Your task to perform on an android device: turn off improve location accuracy Image 0: 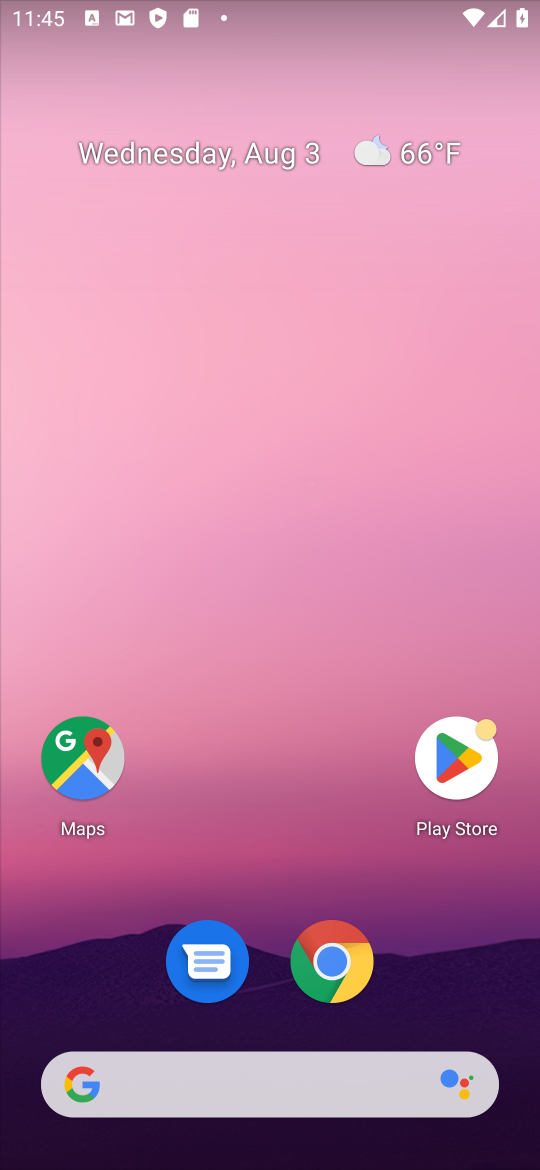
Step 0: drag from (238, 469) to (205, 123)
Your task to perform on an android device: turn off improve location accuracy Image 1: 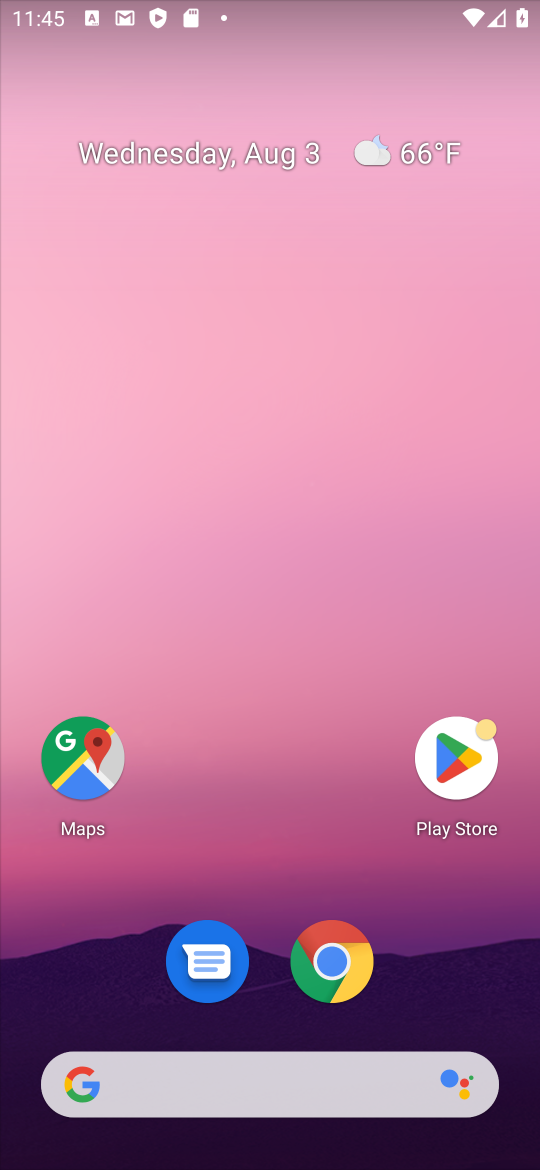
Step 1: drag from (297, 858) to (320, 22)
Your task to perform on an android device: turn off improve location accuracy Image 2: 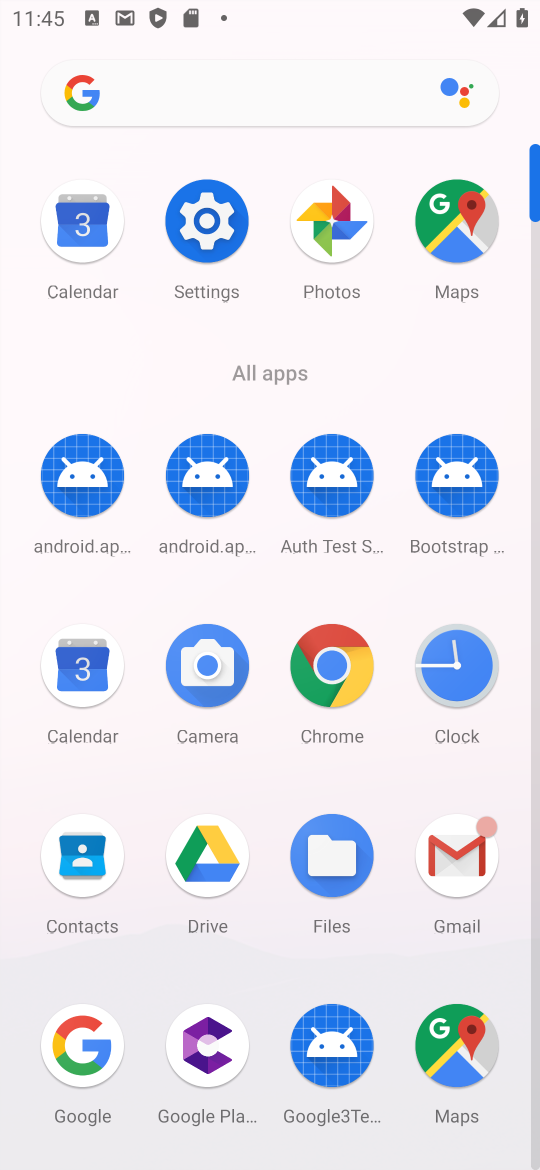
Step 2: click (209, 228)
Your task to perform on an android device: turn off improve location accuracy Image 3: 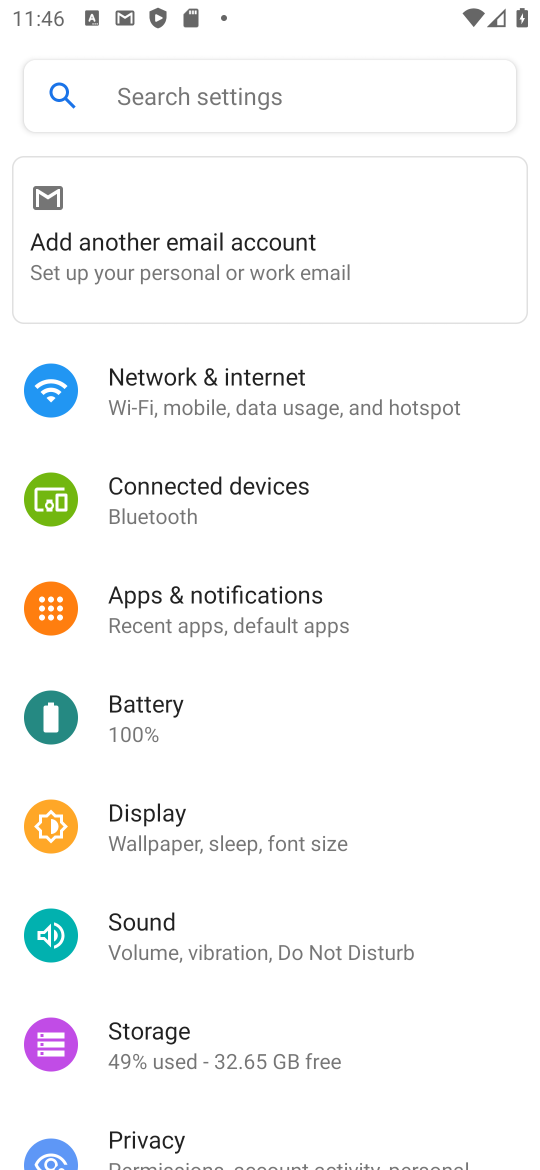
Step 3: drag from (230, 1001) to (301, 123)
Your task to perform on an android device: turn off improve location accuracy Image 4: 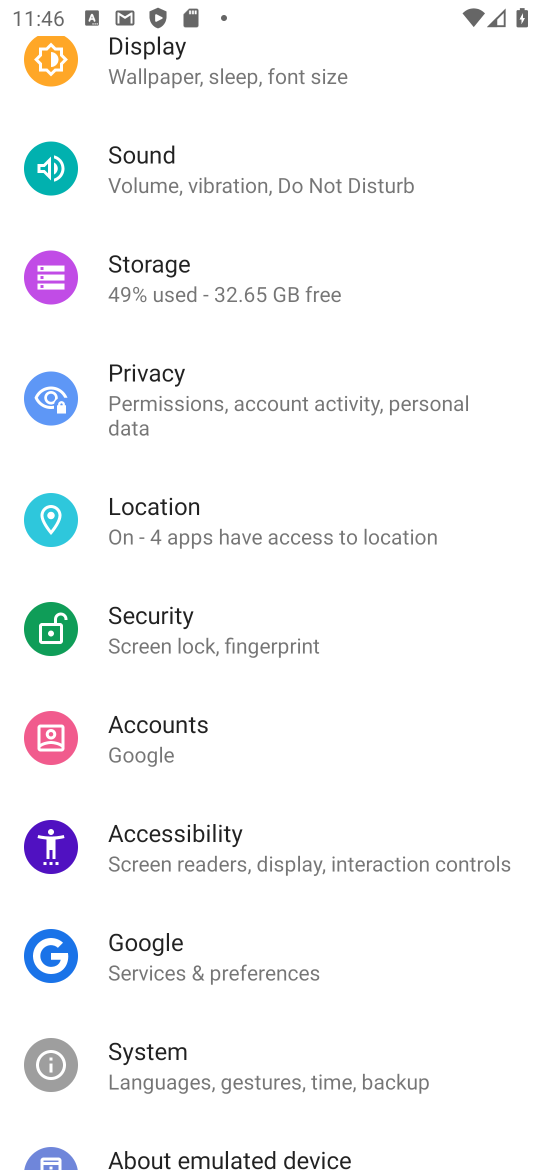
Step 4: click (245, 529)
Your task to perform on an android device: turn off improve location accuracy Image 5: 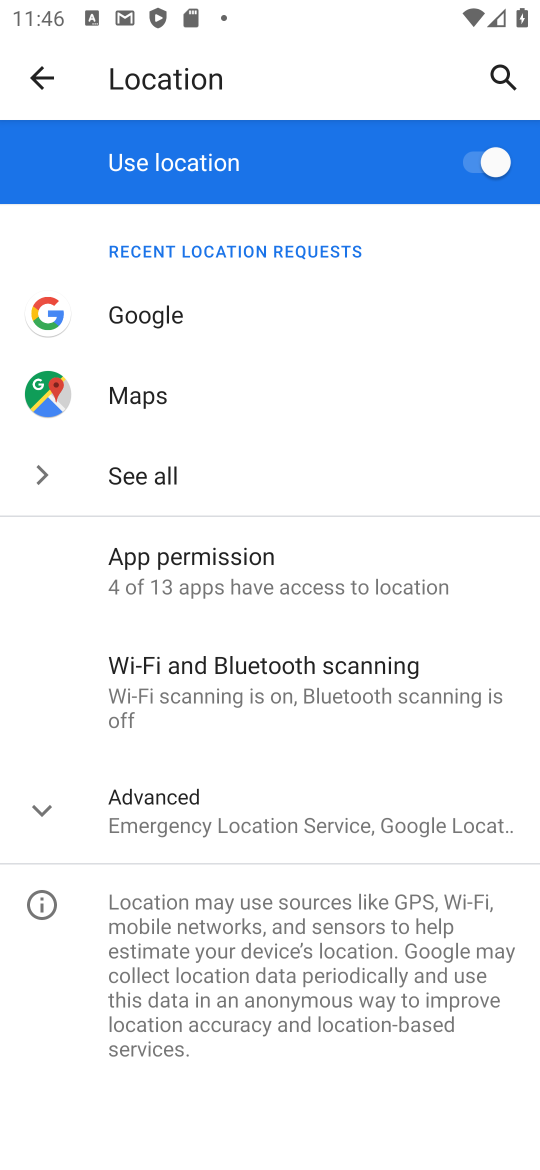
Step 5: click (41, 805)
Your task to perform on an android device: turn off improve location accuracy Image 6: 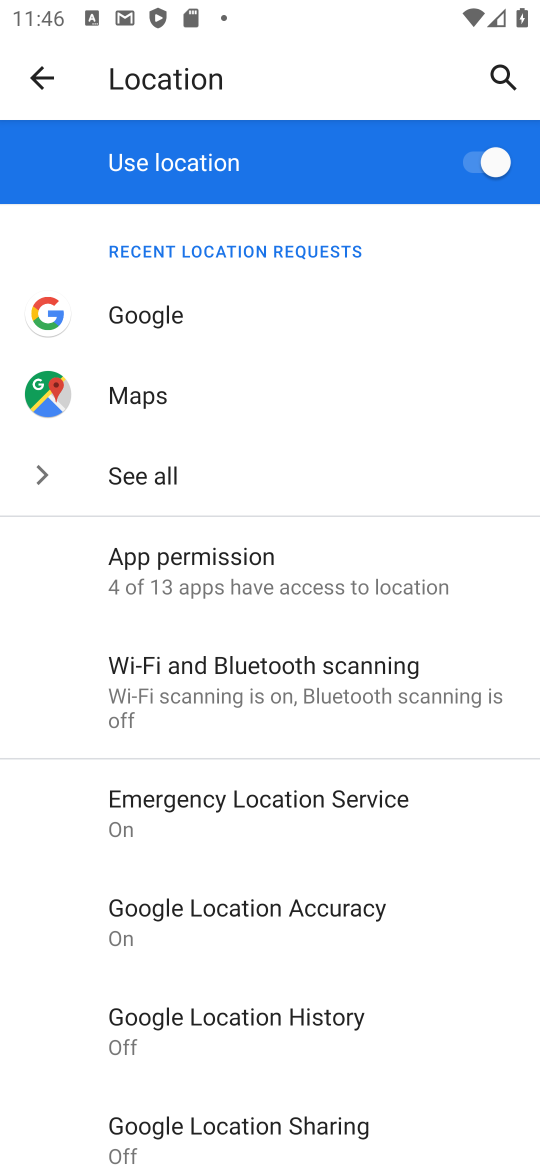
Step 6: click (282, 930)
Your task to perform on an android device: turn off improve location accuracy Image 7: 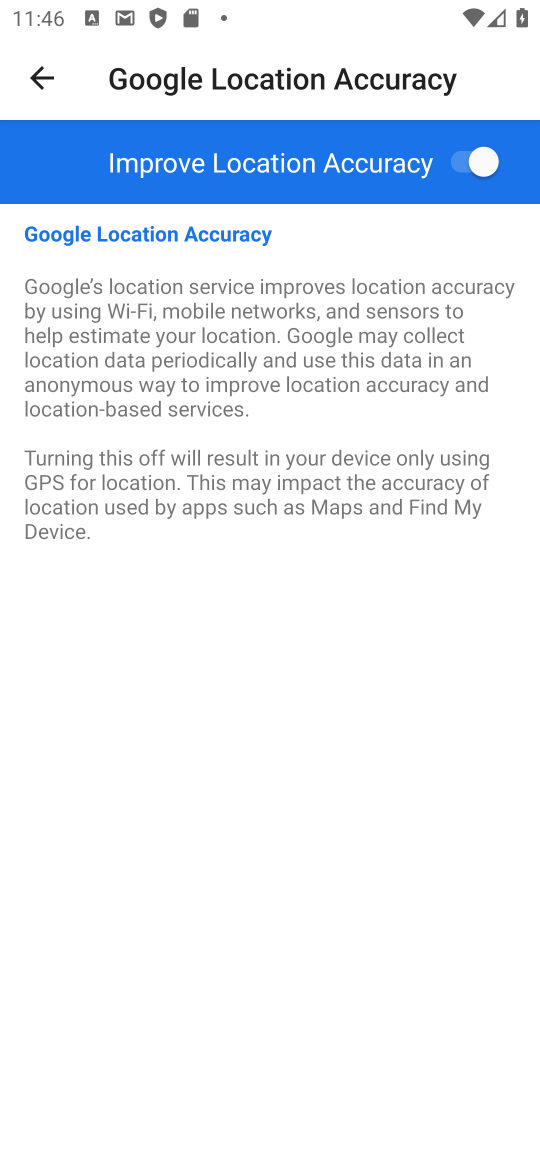
Step 7: click (476, 171)
Your task to perform on an android device: turn off improve location accuracy Image 8: 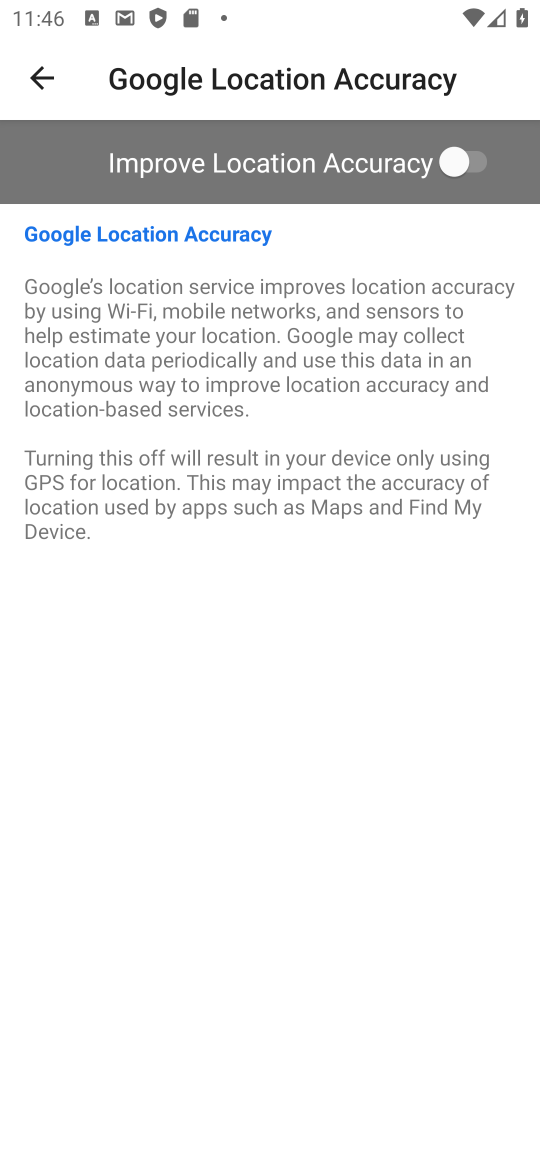
Step 8: task complete